Your task to perform on an android device: open chrome privacy settings Image 0: 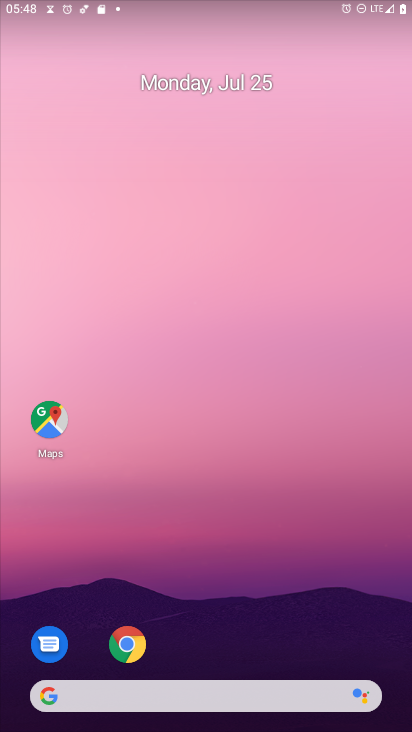
Step 0: drag from (255, 626) to (286, 19)
Your task to perform on an android device: open chrome privacy settings Image 1: 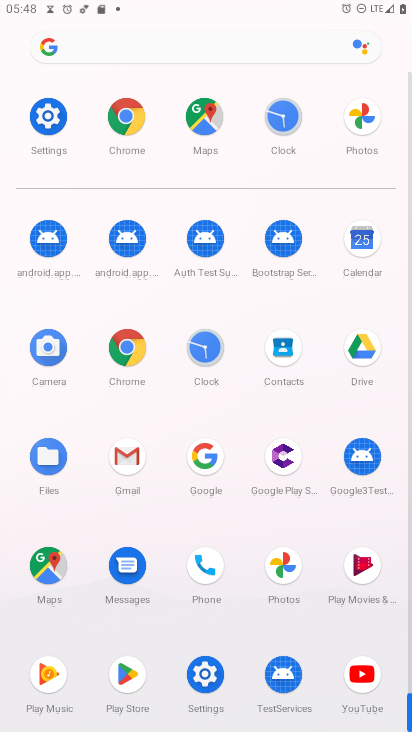
Step 1: click (138, 123)
Your task to perform on an android device: open chrome privacy settings Image 2: 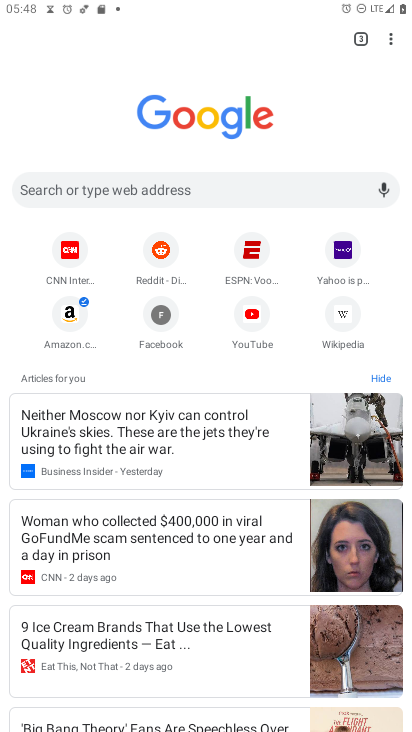
Step 2: drag from (386, 35) to (294, 327)
Your task to perform on an android device: open chrome privacy settings Image 3: 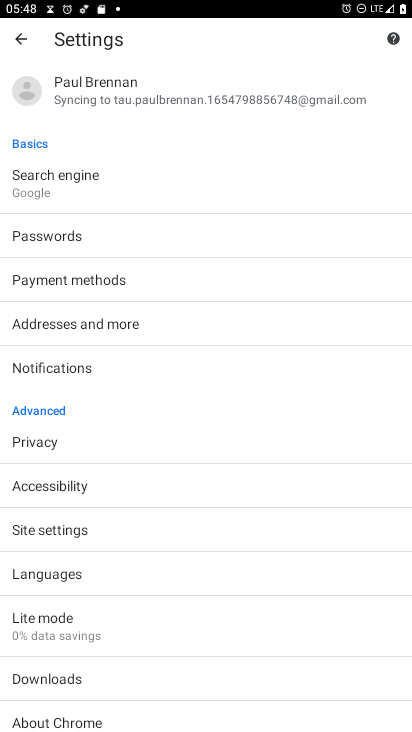
Step 3: click (26, 437)
Your task to perform on an android device: open chrome privacy settings Image 4: 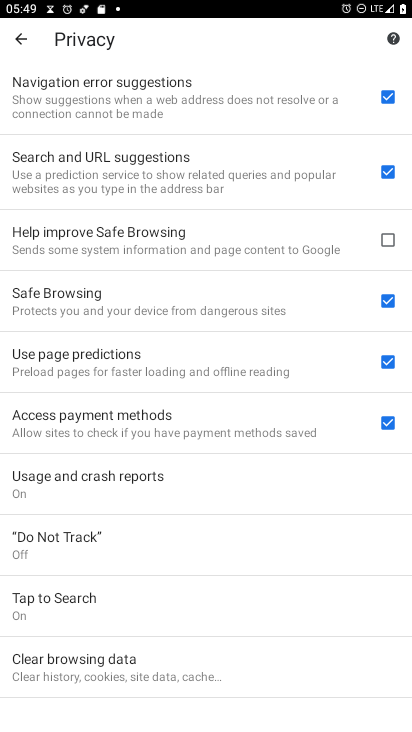
Step 4: task complete